Your task to perform on an android device: Search for usb-c on ebay.com, select the first entry, and add it to the cart. Image 0: 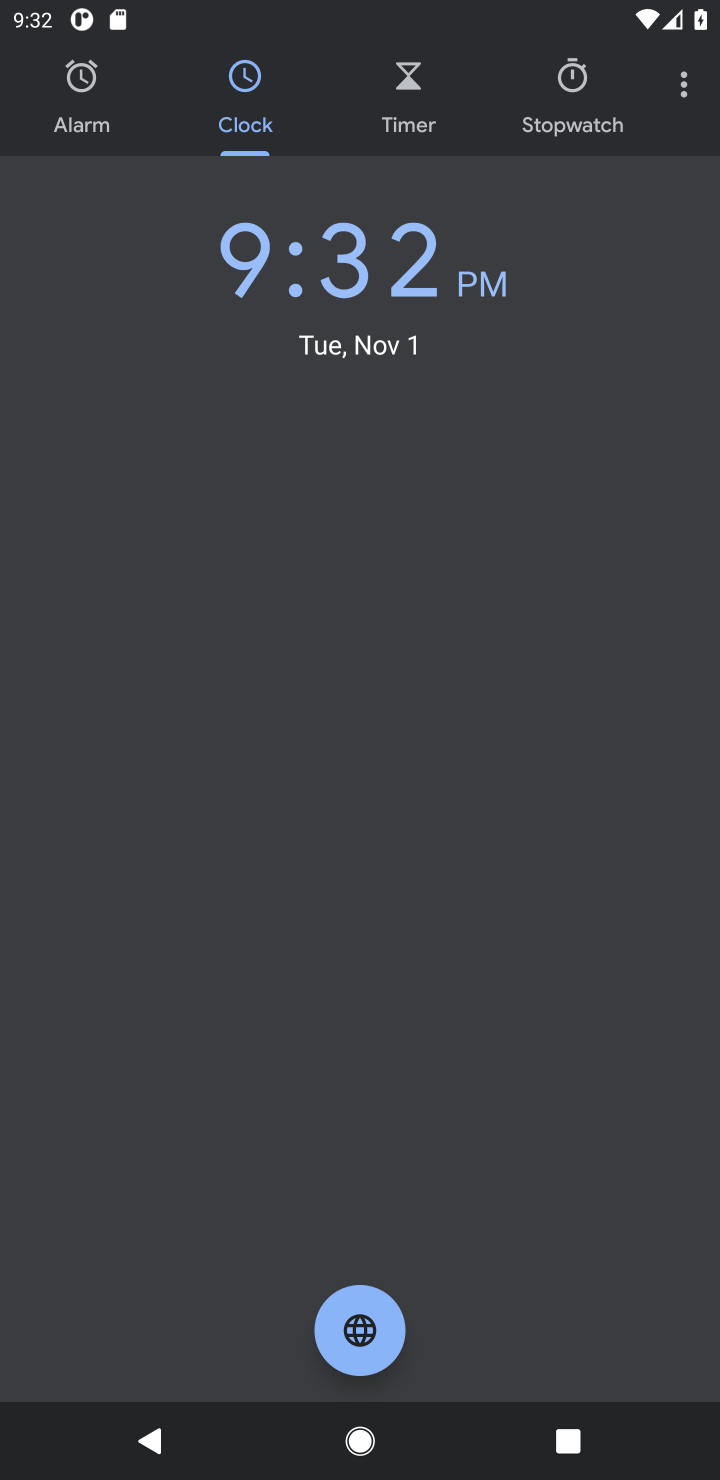
Step 0: press home button
Your task to perform on an android device: Search for usb-c on ebay.com, select the first entry, and add it to the cart. Image 1: 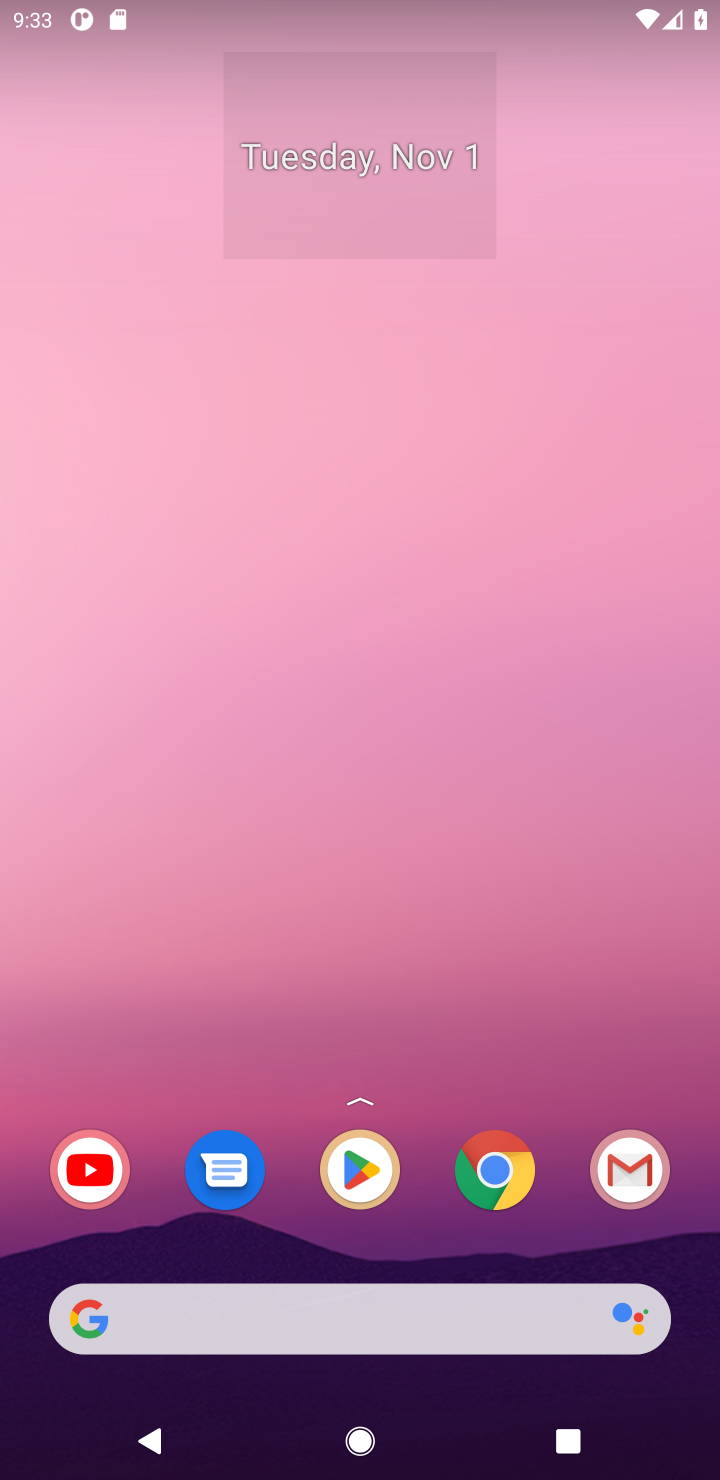
Step 1: click (503, 1164)
Your task to perform on an android device: Search for usb-c on ebay.com, select the first entry, and add it to the cart. Image 2: 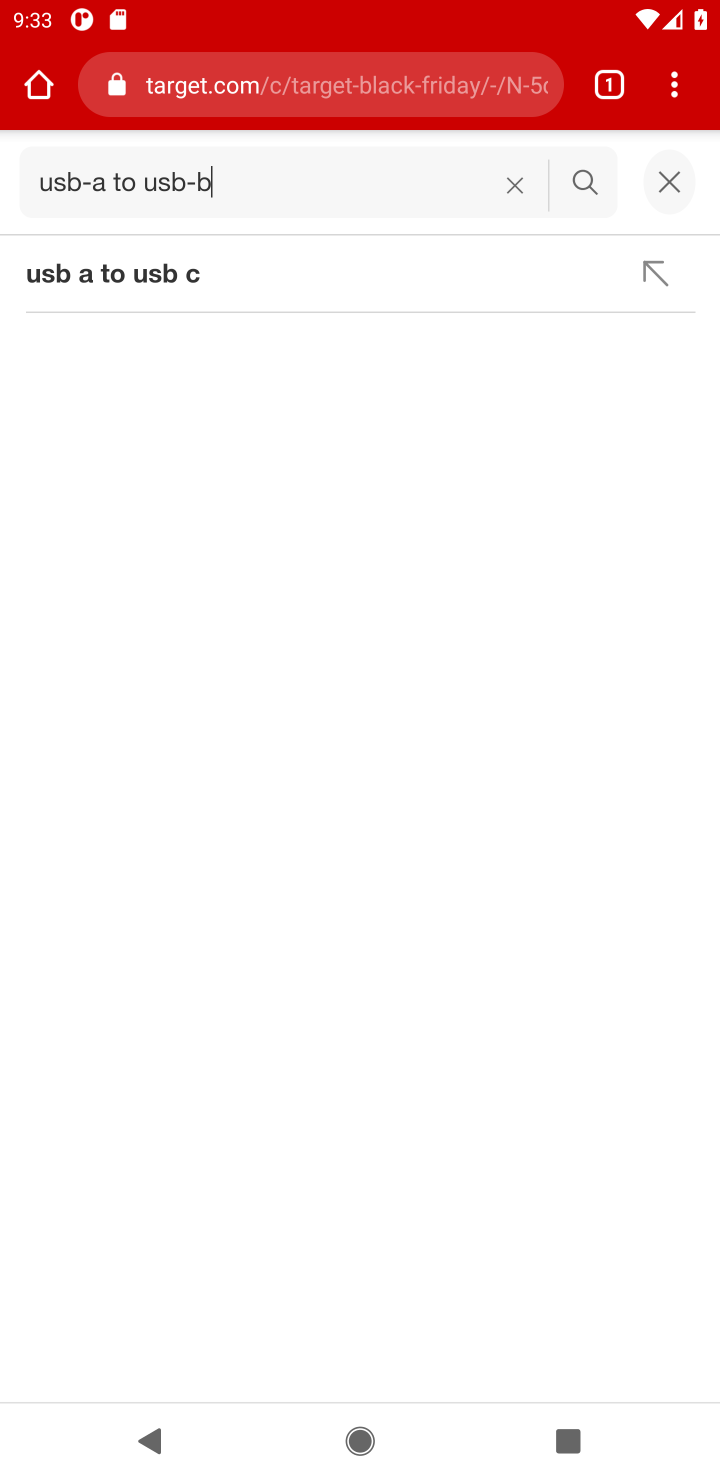
Step 2: click (334, 75)
Your task to perform on an android device: Search for usb-c on ebay.com, select the first entry, and add it to the cart. Image 3: 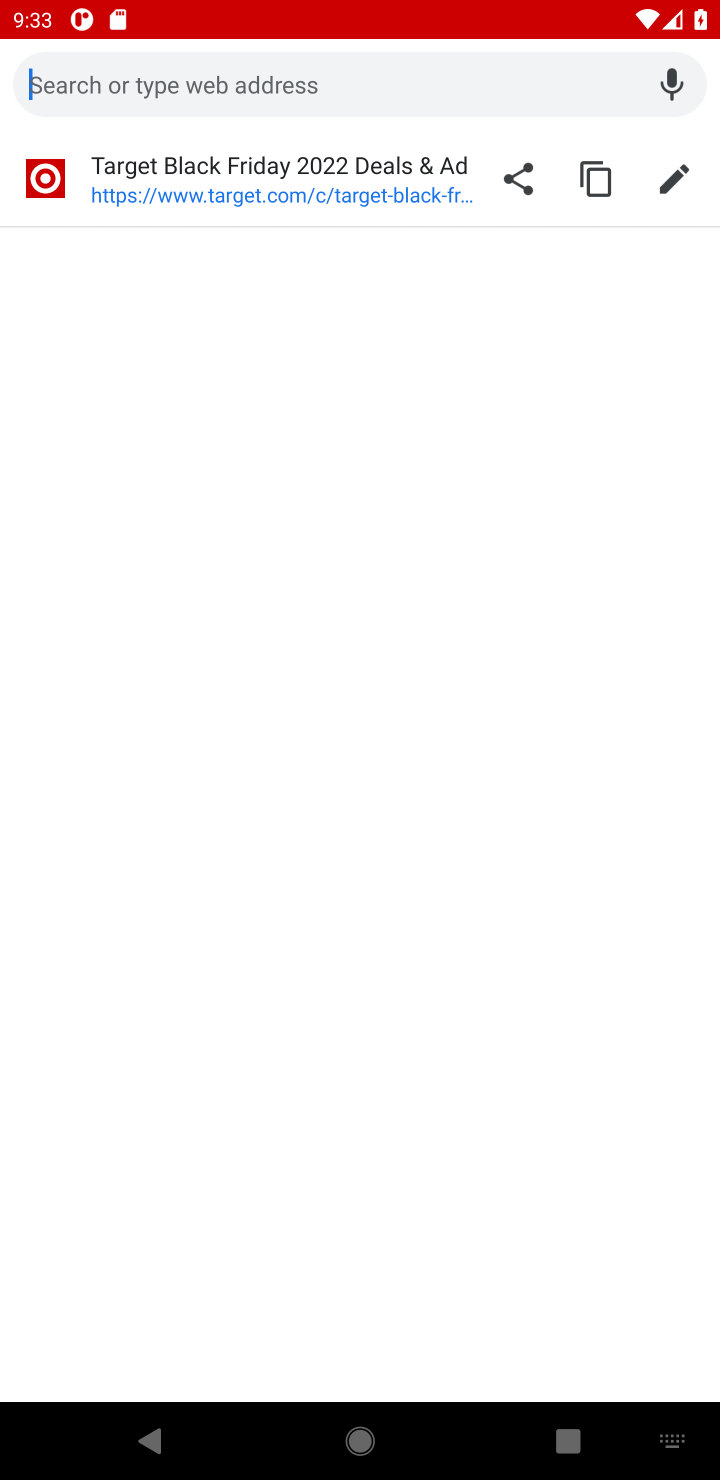
Step 3: type "ebay.com"
Your task to perform on an android device: Search for usb-c on ebay.com, select the first entry, and add it to the cart. Image 4: 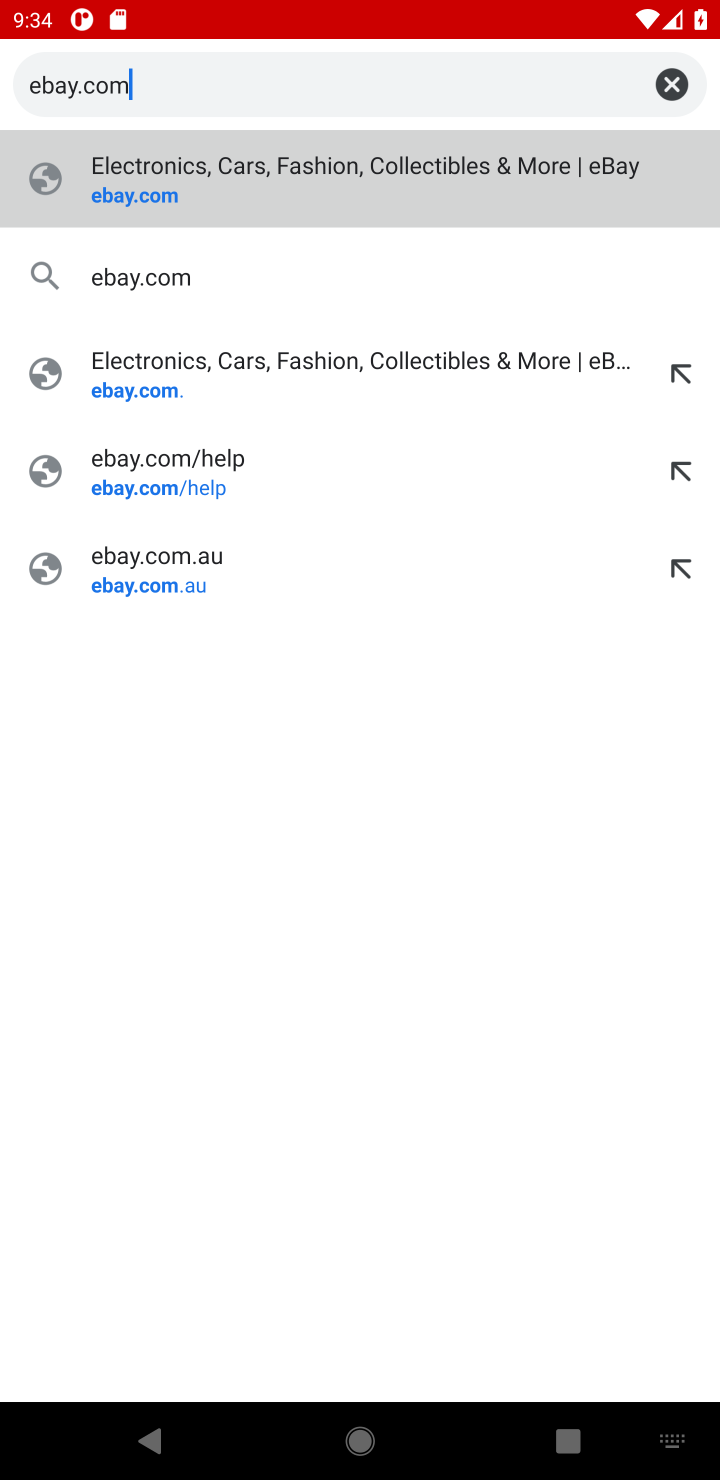
Step 4: click (199, 203)
Your task to perform on an android device: Search for usb-c on ebay.com, select the first entry, and add it to the cart. Image 5: 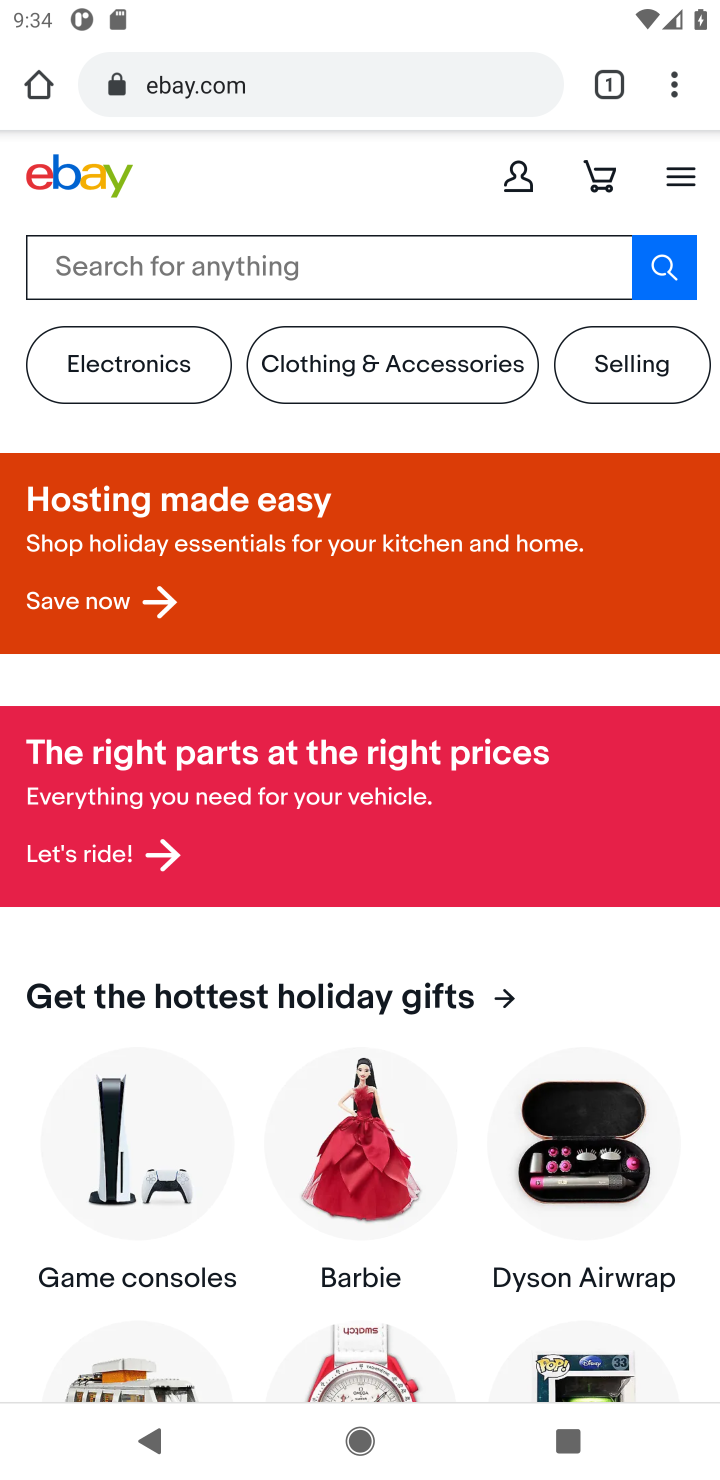
Step 5: click (321, 259)
Your task to perform on an android device: Search for usb-c on ebay.com, select the first entry, and add it to the cart. Image 6: 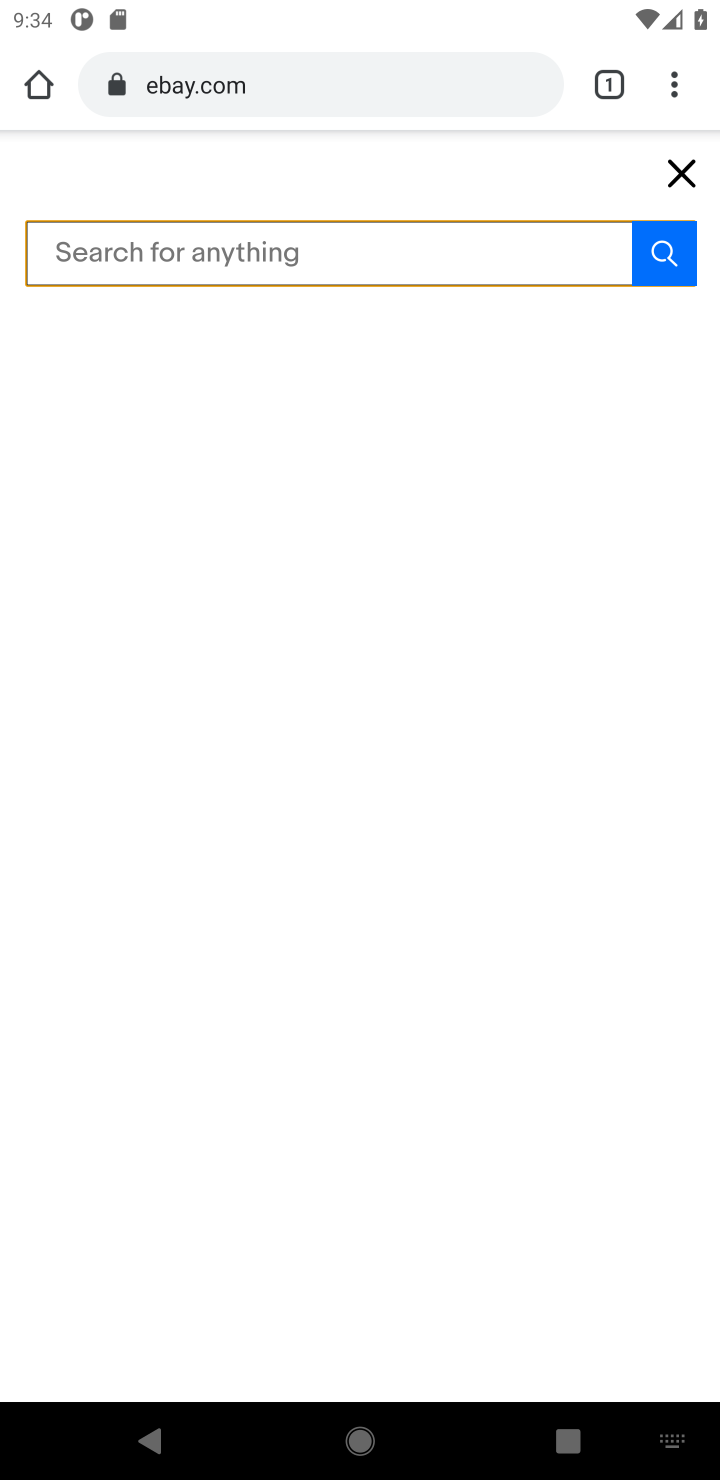
Step 6: type "usb-c"
Your task to perform on an android device: Search for usb-c on ebay.com, select the first entry, and add it to the cart. Image 7: 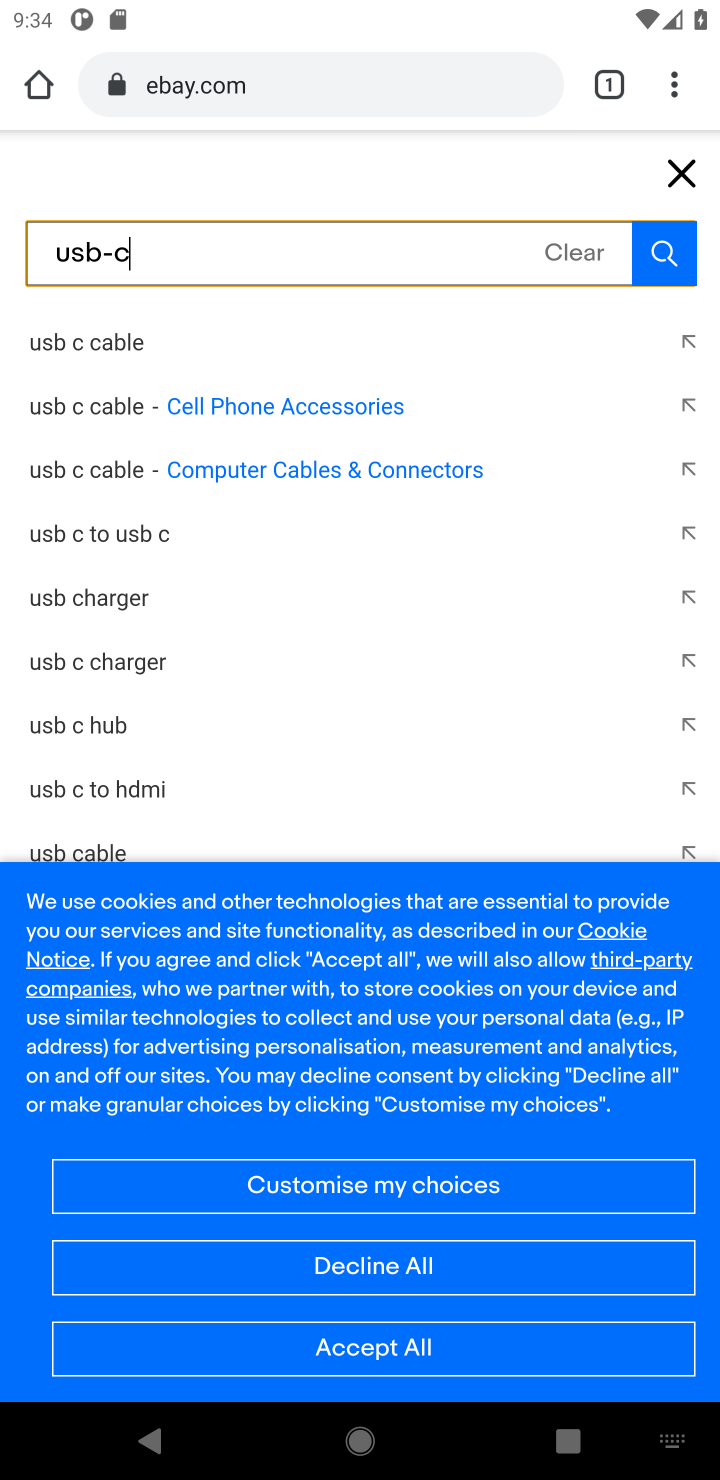
Step 7: click (100, 343)
Your task to perform on an android device: Search for usb-c on ebay.com, select the first entry, and add it to the cart. Image 8: 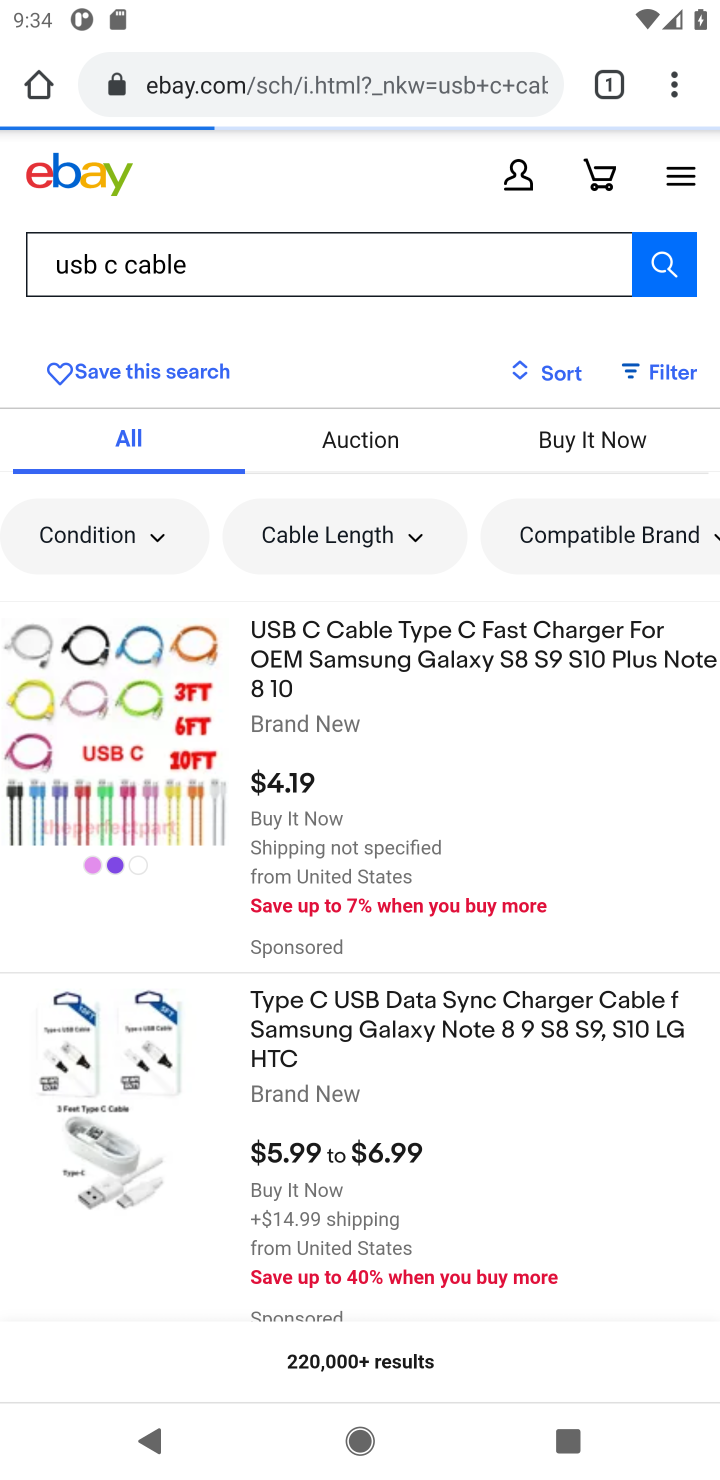
Step 8: click (420, 661)
Your task to perform on an android device: Search for usb-c on ebay.com, select the first entry, and add it to the cart. Image 9: 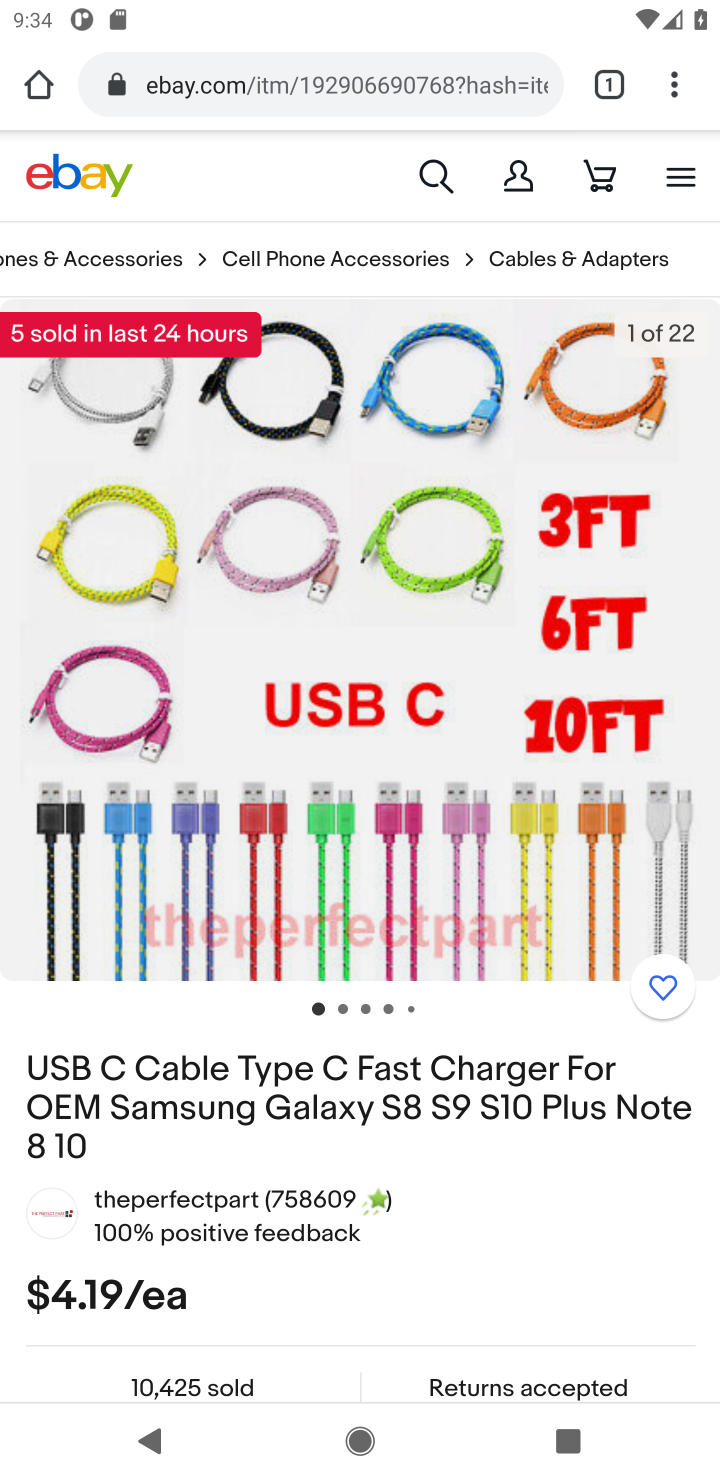
Step 9: drag from (263, 1127) to (288, 373)
Your task to perform on an android device: Search for usb-c on ebay.com, select the first entry, and add it to the cart. Image 10: 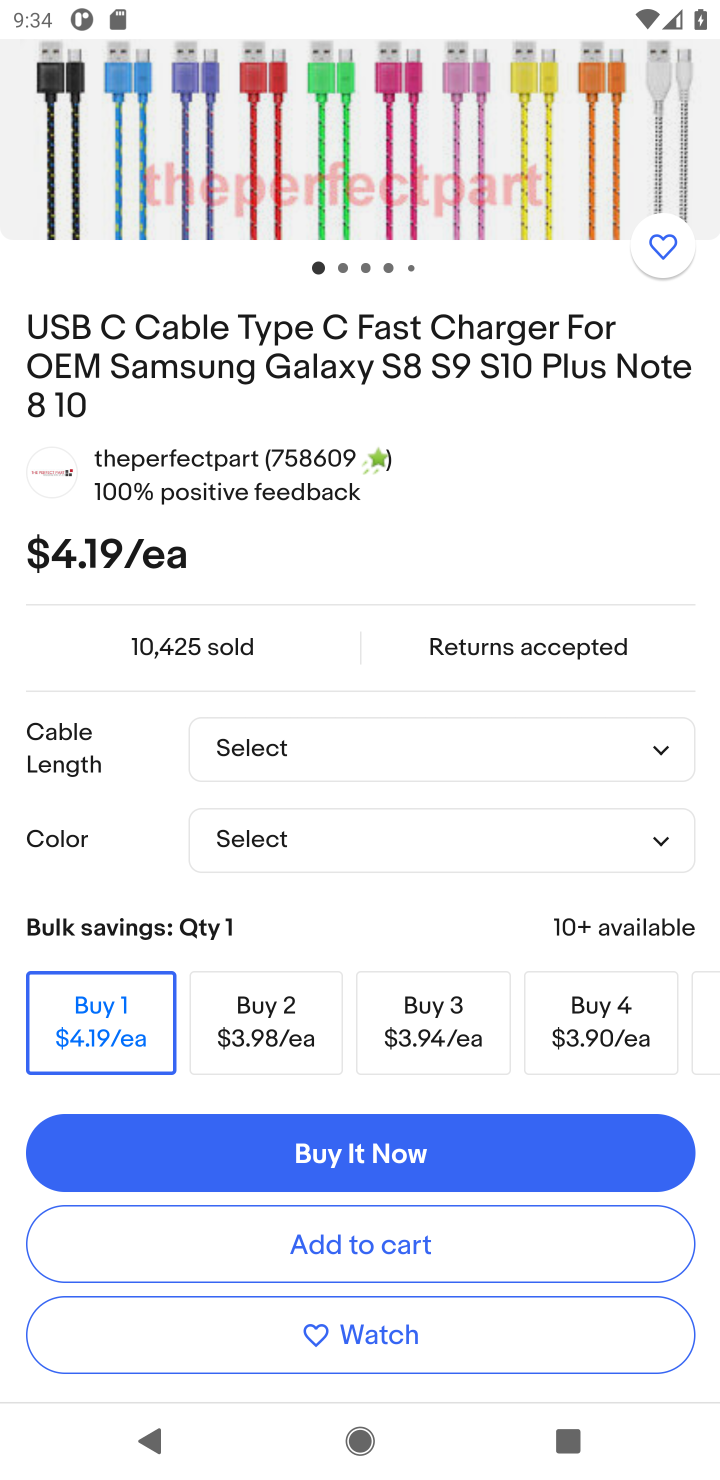
Step 10: click (323, 1241)
Your task to perform on an android device: Search for usb-c on ebay.com, select the first entry, and add it to the cart. Image 11: 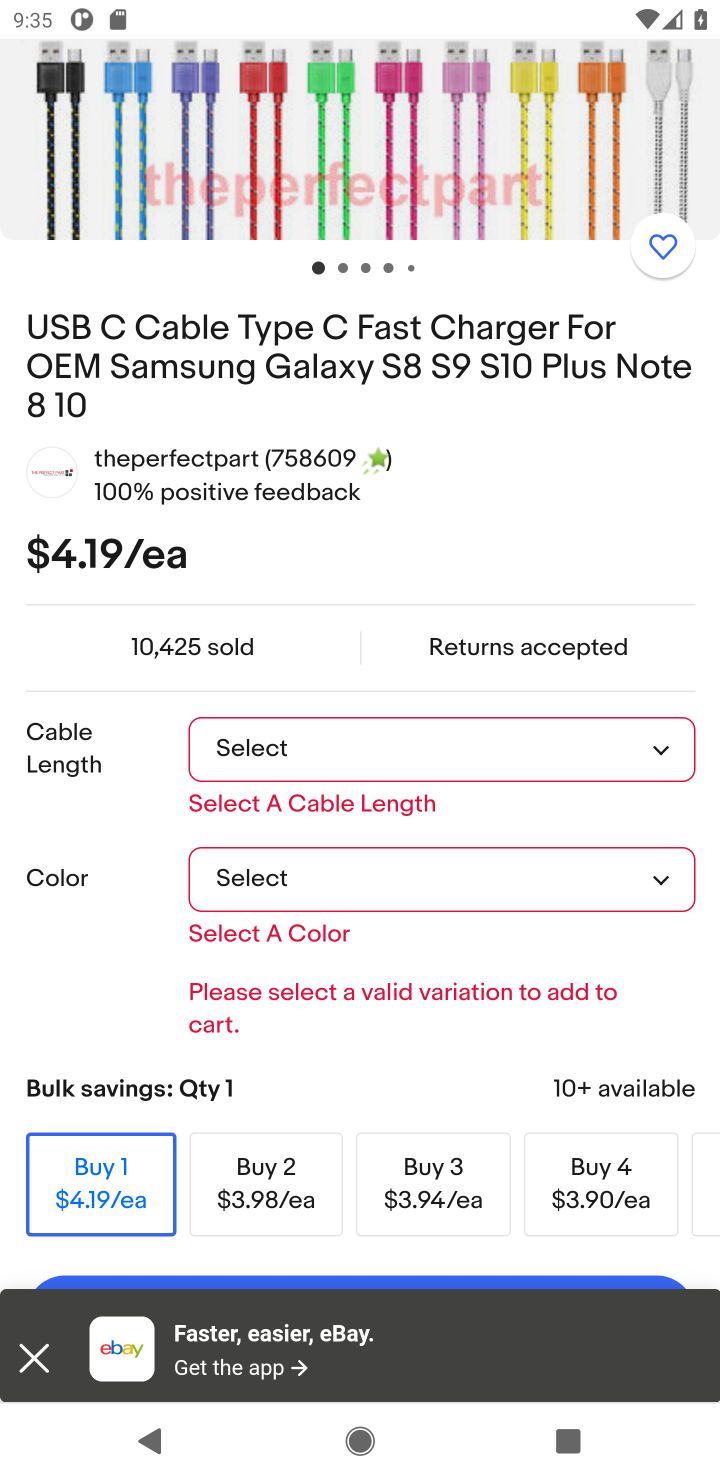
Step 11: click (28, 1357)
Your task to perform on an android device: Search for usb-c on ebay.com, select the first entry, and add it to the cart. Image 12: 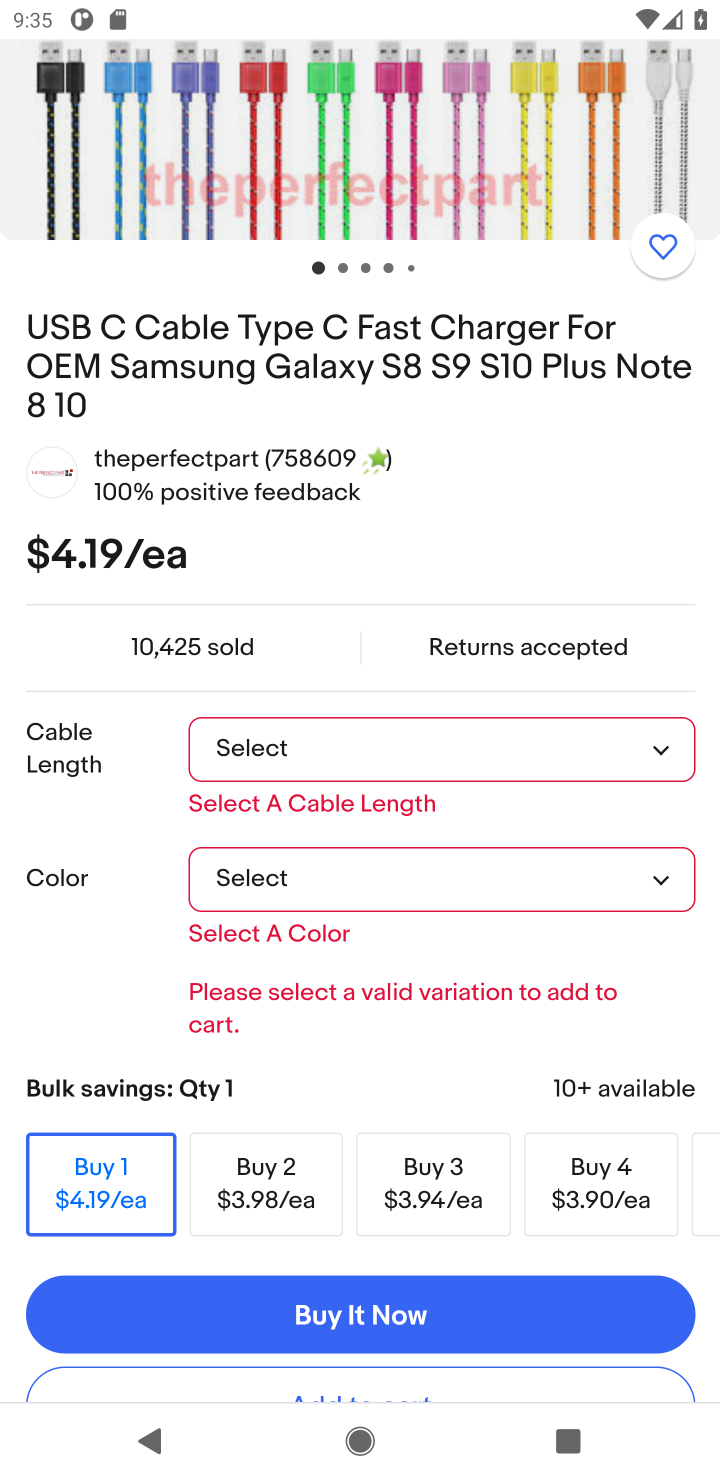
Step 12: drag from (675, 1298) to (558, 494)
Your task to perform on an android device: Search for usb-c on ebay.com, select the first entry, and add it to the cart. Image 13: 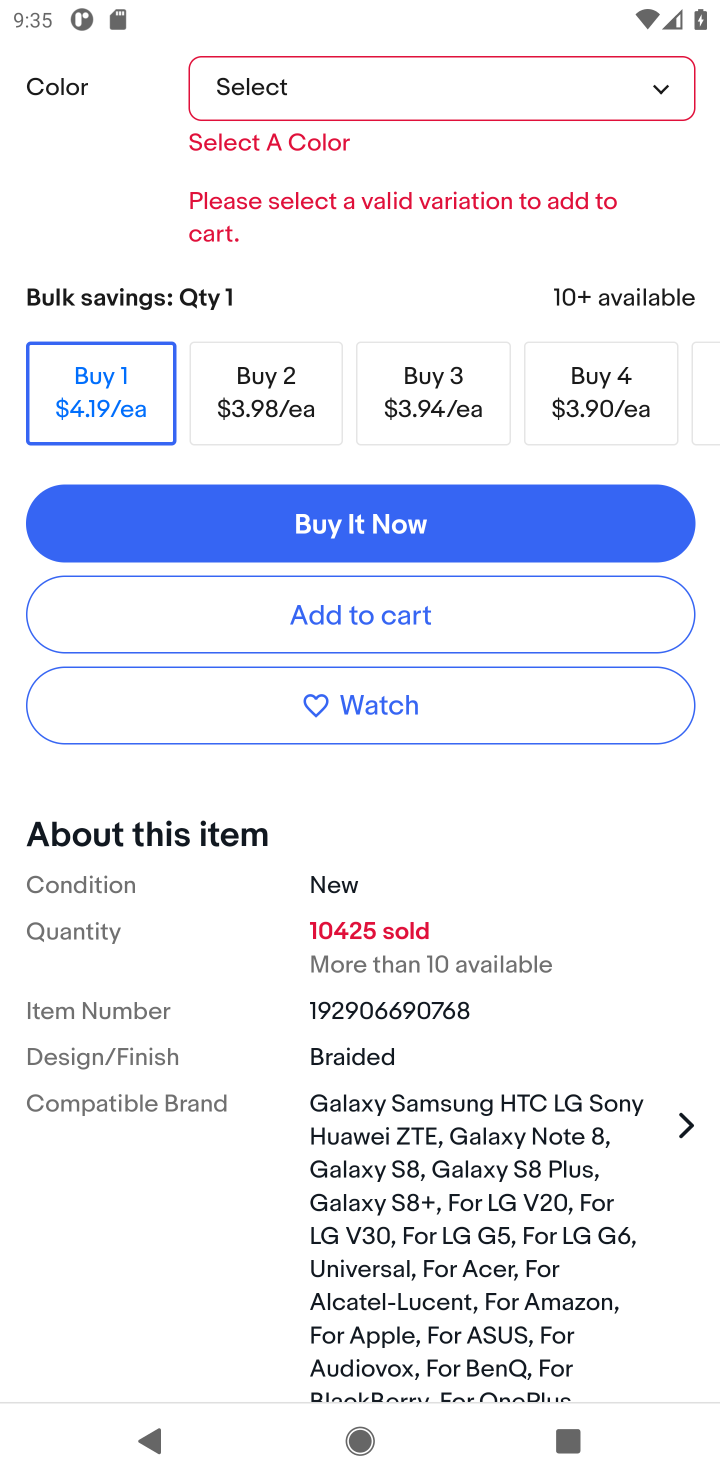
Step 13: click (372, 607)
Your task to perform on an android device: Search for usb-c on ebay.com, select the first entry, and add it to the cart. Image 14: 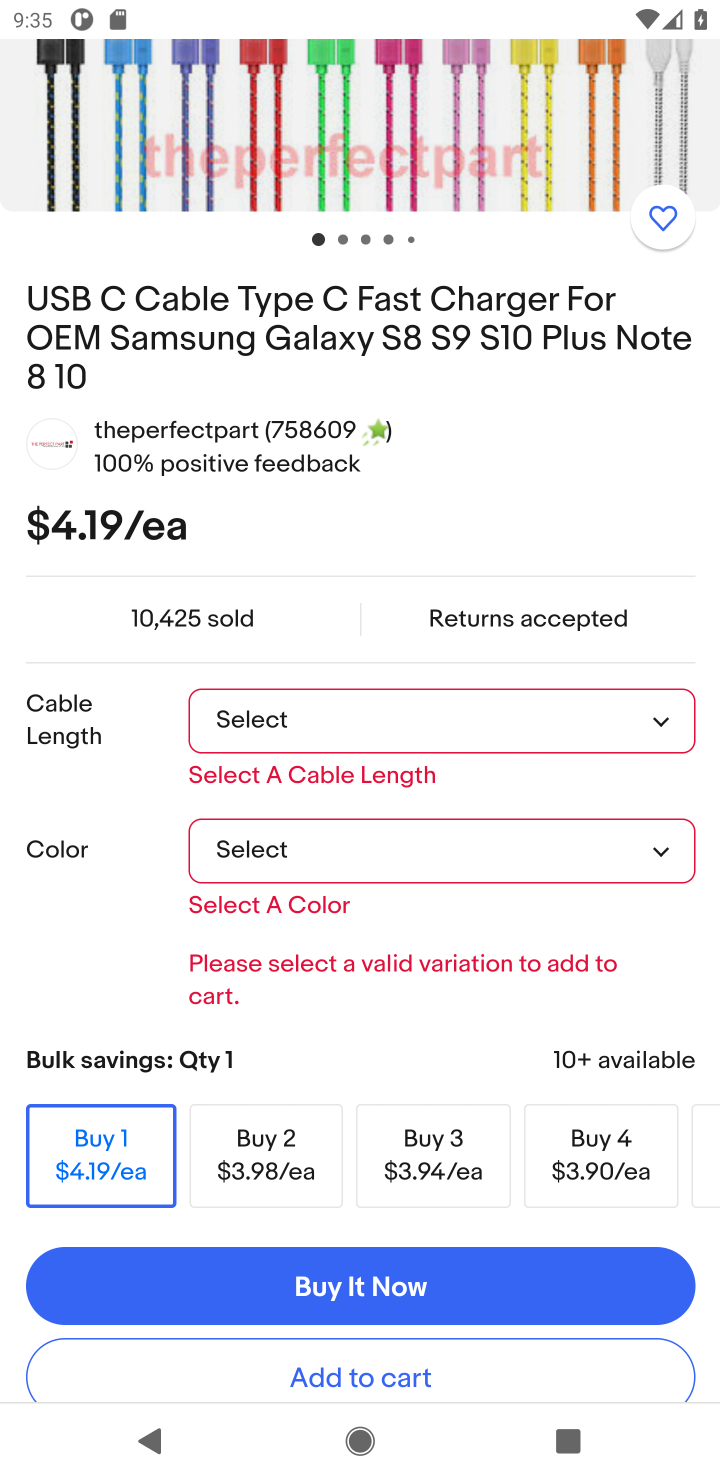
Step 14: click (98, 1142)
Your task to perform on an android device: Search for usb-c on ebay.com, select the first entry, and add it to the cart. Image 15: 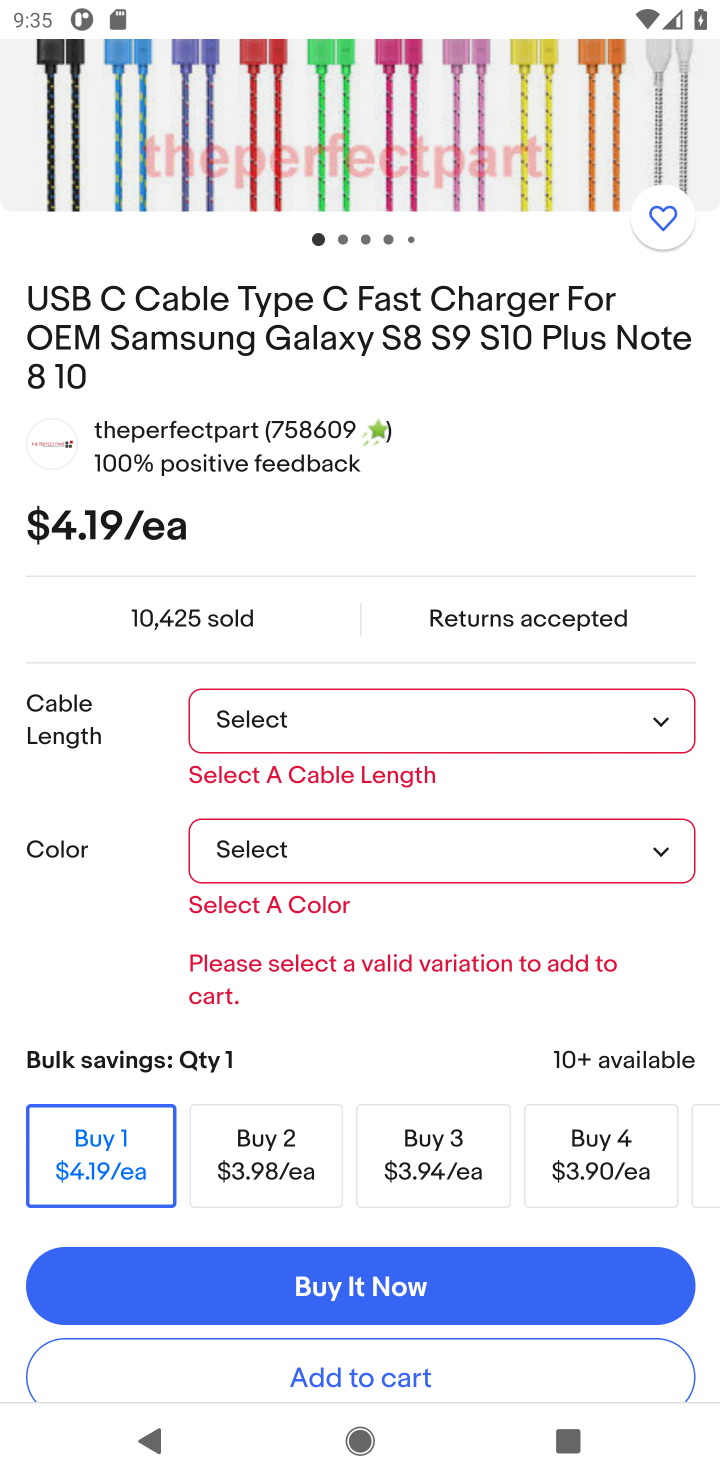
Step 15: click (343, 1383)
Your task to perform on an android device: Search for usb-c on ebay.com, select the first entry, and add it to the cart. Image 16: 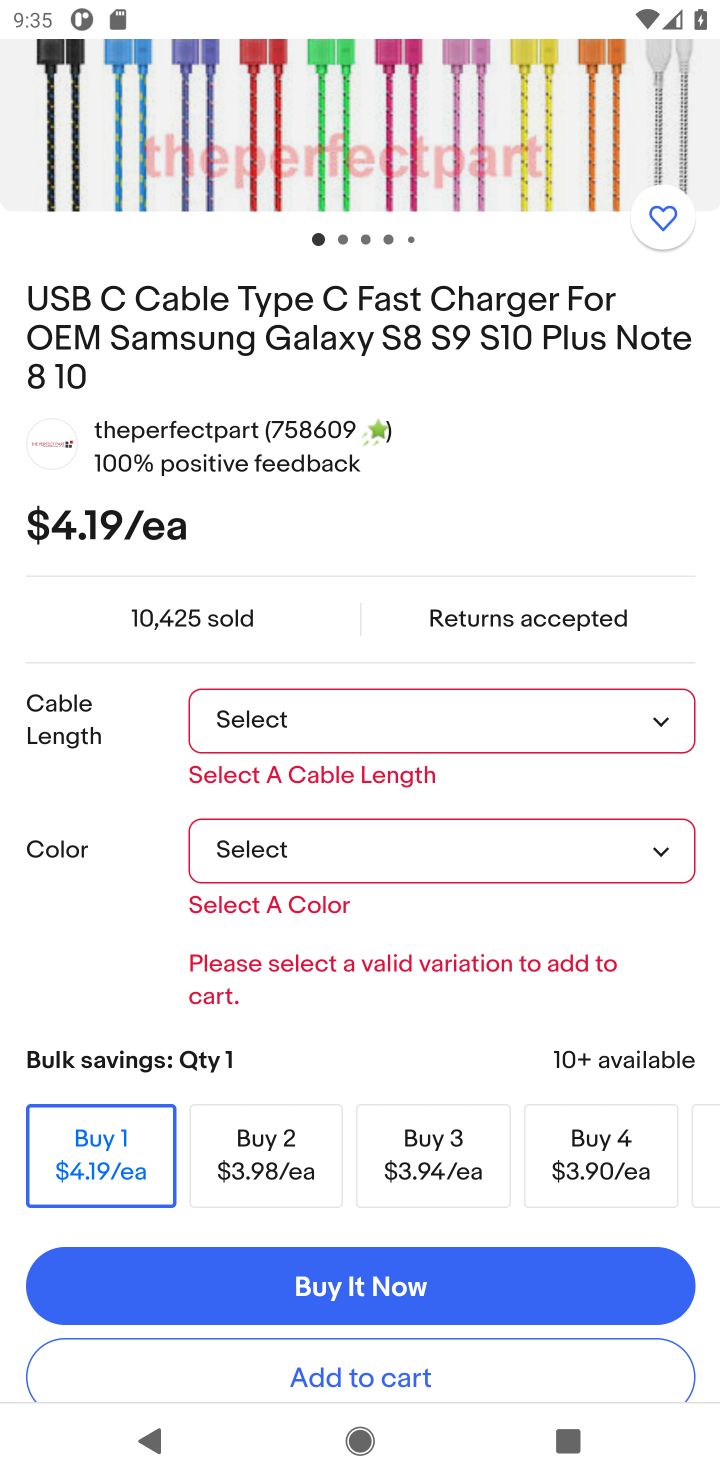
Step 16: click (343, 1383)
Your task to perform on an android device: Search for usb-c on ebay.com, select the first entry, and add it to the cart. Image 17: 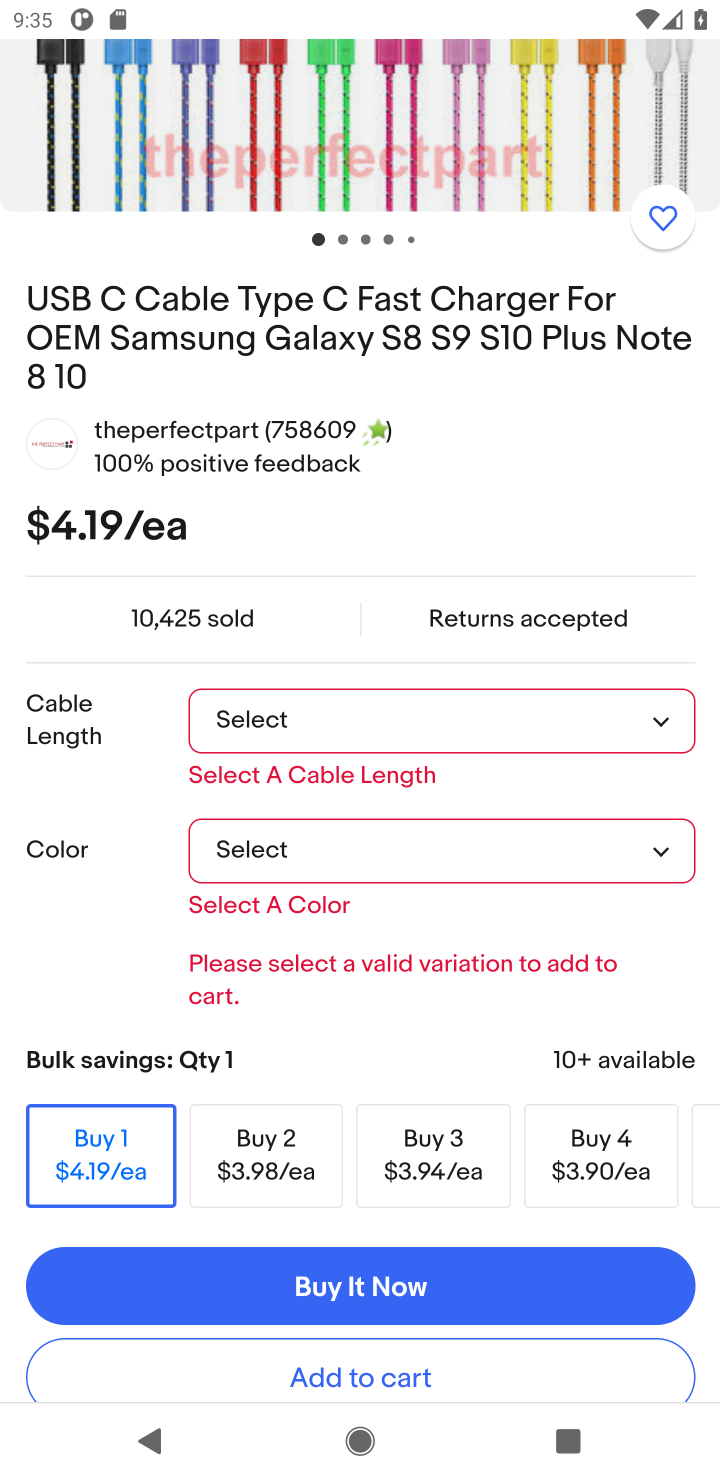
Step 17: task complete